Your task to perform on an android device: Open Chrome and go to settings Image 0: 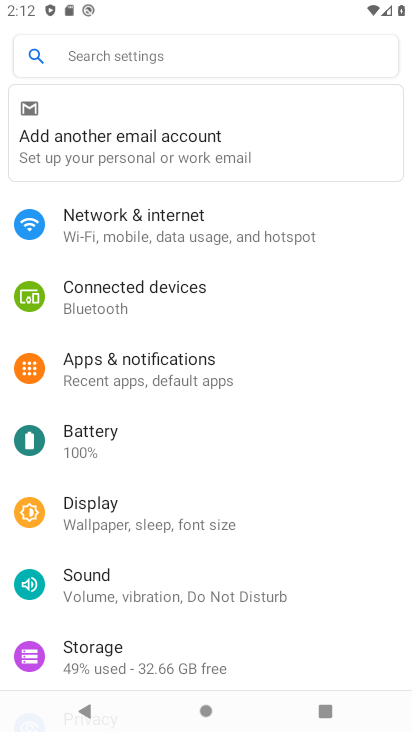
Step 0: press home button
Your task to perform on an android device: Open Chrome and go to settings Image 1: 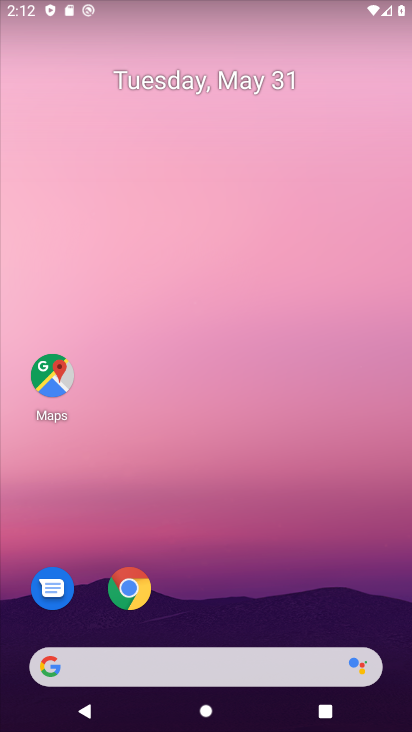
Step 1: click (144, 586)
Your task to perform on an android device: Open Chrome and go to settings Image 2: 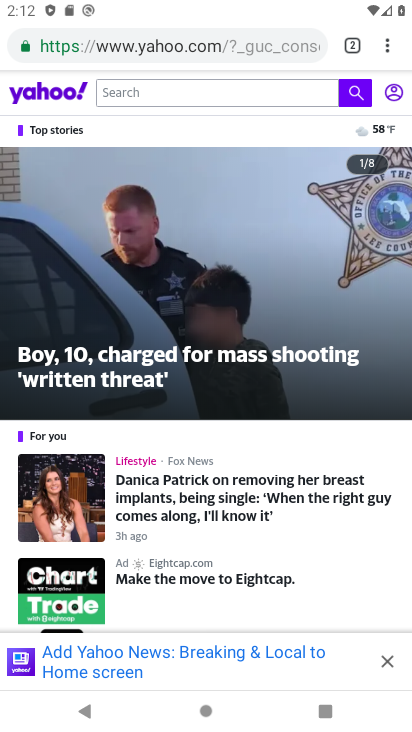
Step 2: click (386, 48)
Your task to perform on an android device: Open Chrome and go to settings Image 3: 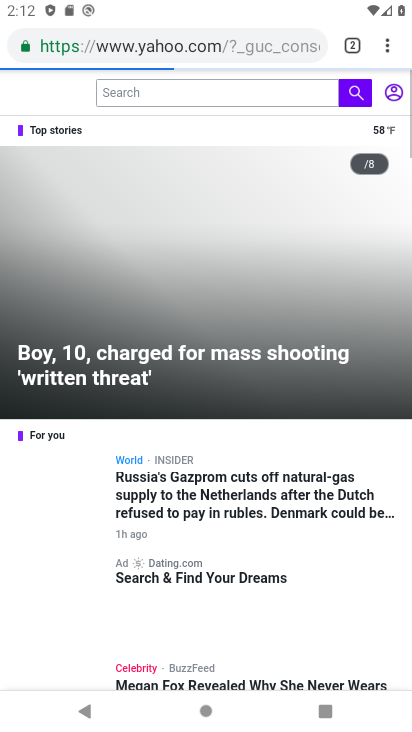
Step 3: click (389, 41)
Your task to perform on an android device: Open Chrome and go to settings Image 4: 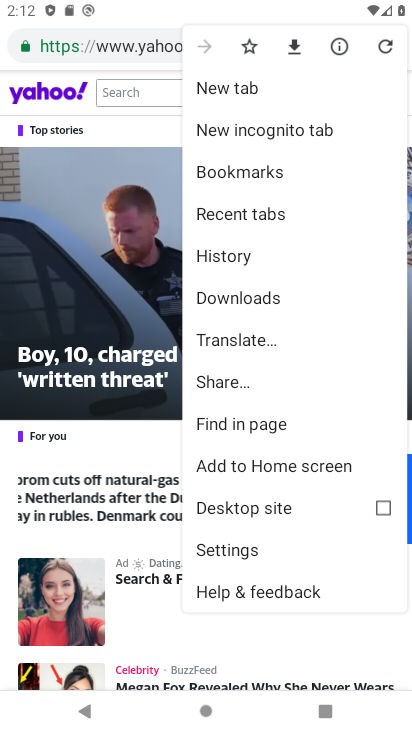
Step 4: click (245, 543)
Your task to perform on an android device: Open Chrome and go to settings Image 5: 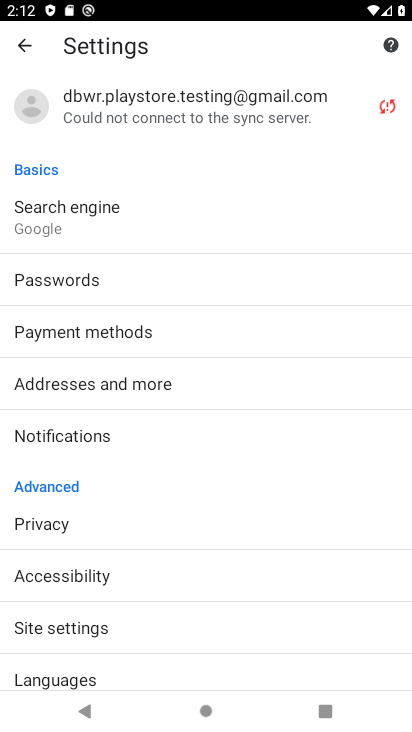
Step 5: task complete